Your task to perform on an android device: turn on wifi Image 0: 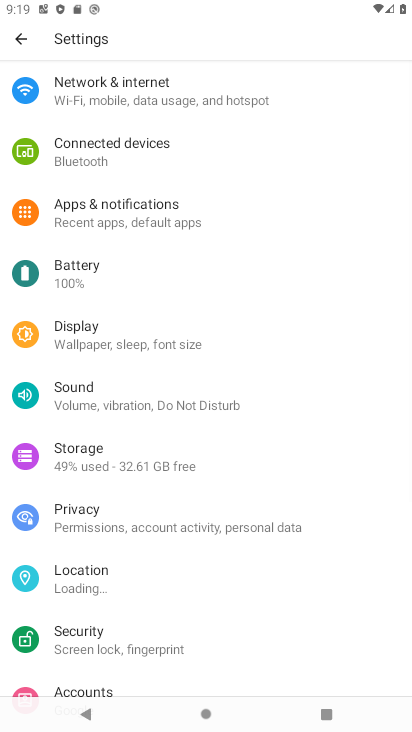
Step 0: click (162, 96)
Your task to perform on an android device: turn on wifi Image 1: 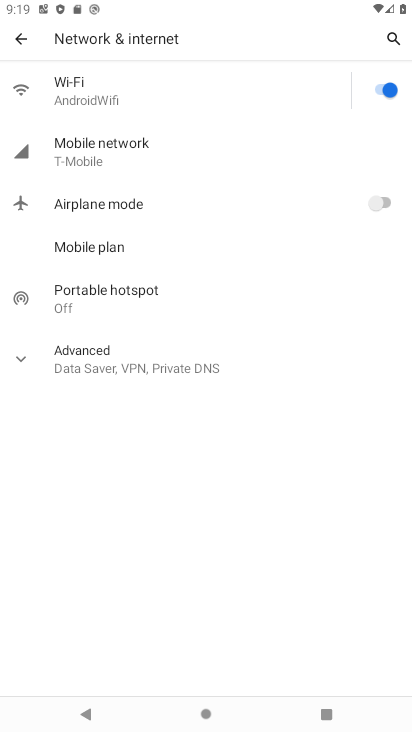
Step 1: task complete